Your task to perform on an android device: Go to Maps Image 0: 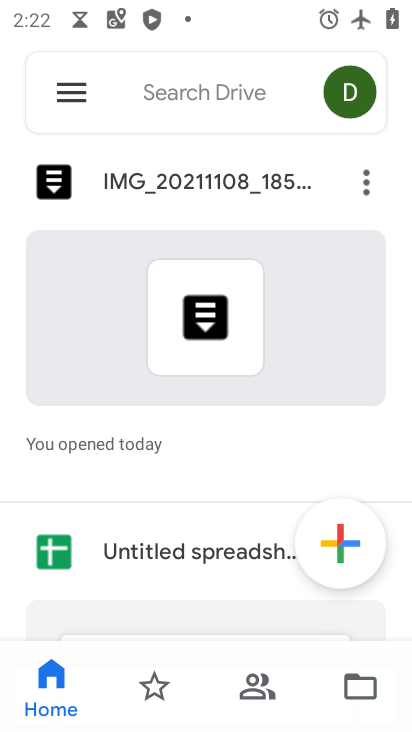
Step 0: press home button
Your task to perform on an android device: Go to Maps Image 1: 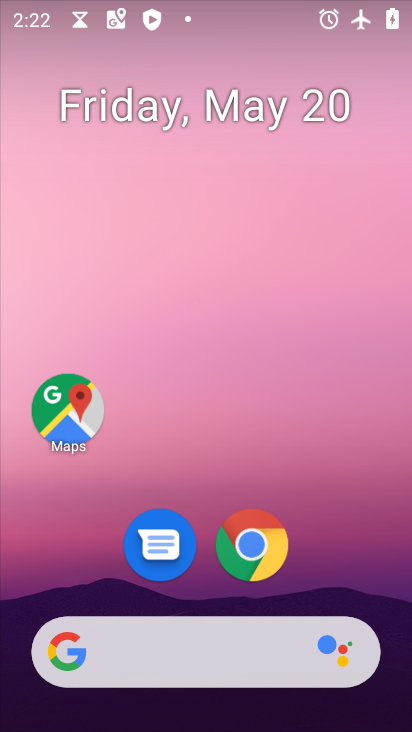
Step 1: click (68, 419)
Your task to perform on an android device: Go to Maps Image 2: 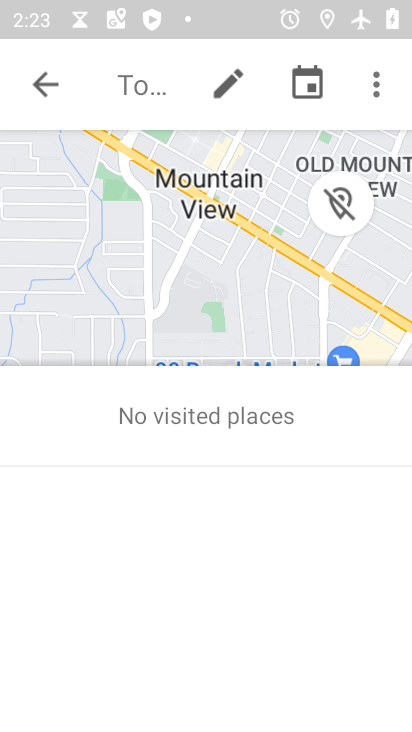
Step 2: task complete